Your task to perform on an android device: Look up the best rated book on Goodreads Image 0: 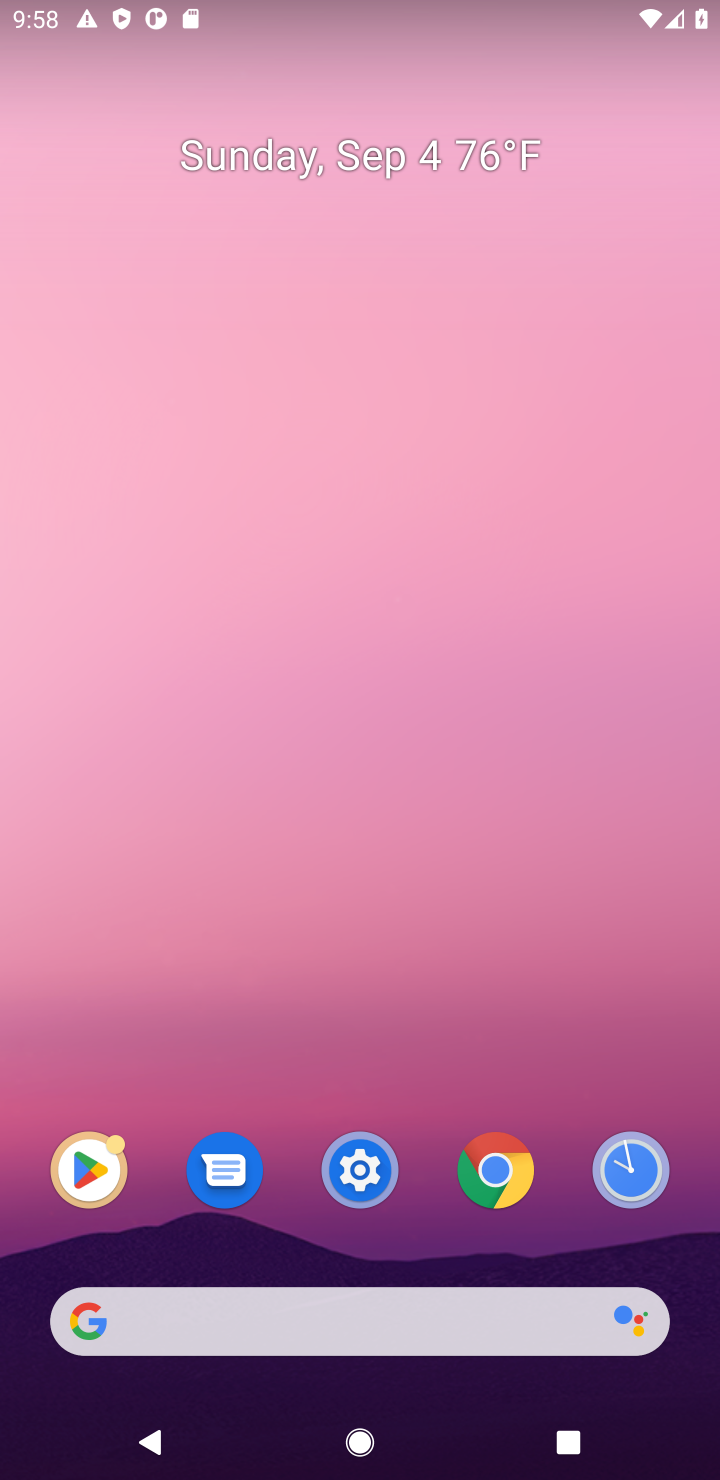
Step 0: click (389, 1341)
Your task to perform on an android device: Look up the best rated book on Goodreads Image 1: 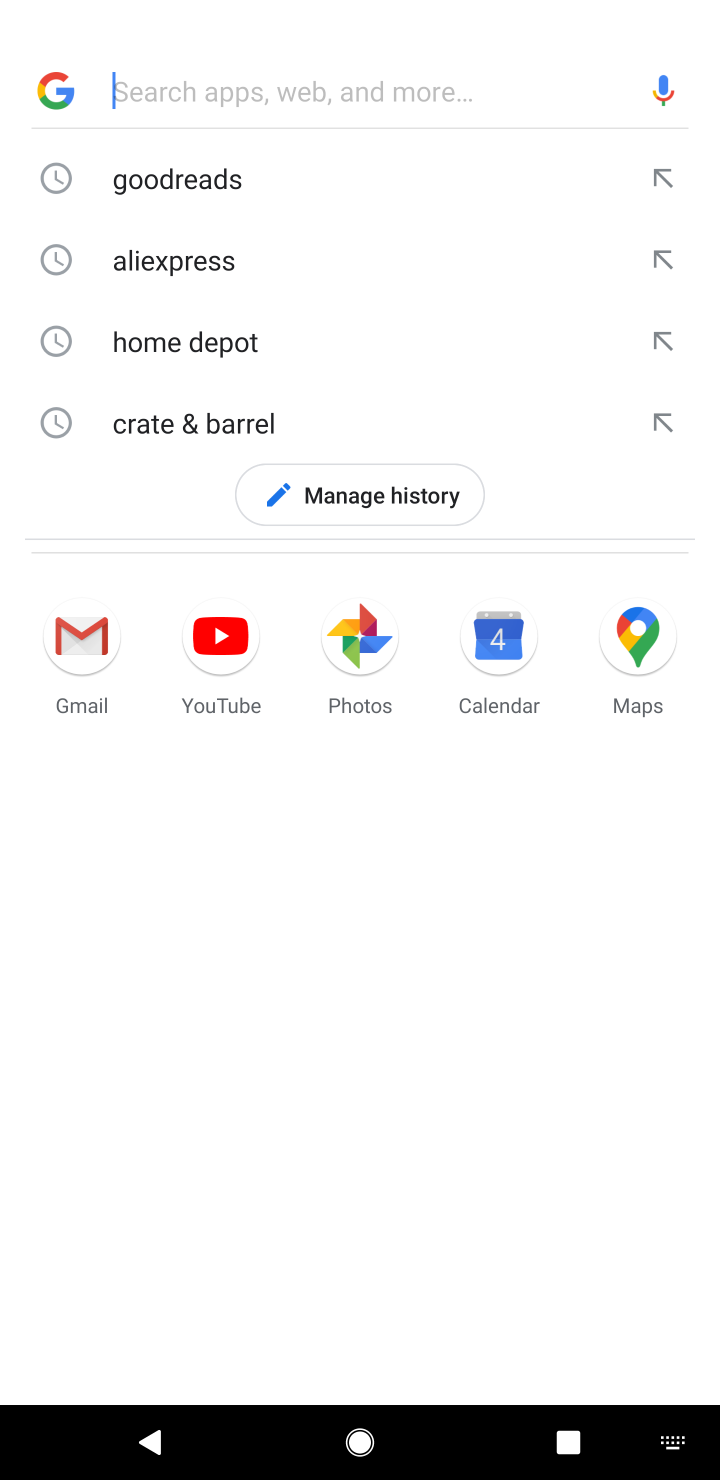
Step 1: click (152, 174)
Your task to perform on an android device: Look up the best rated book on Goodreads Image 2: 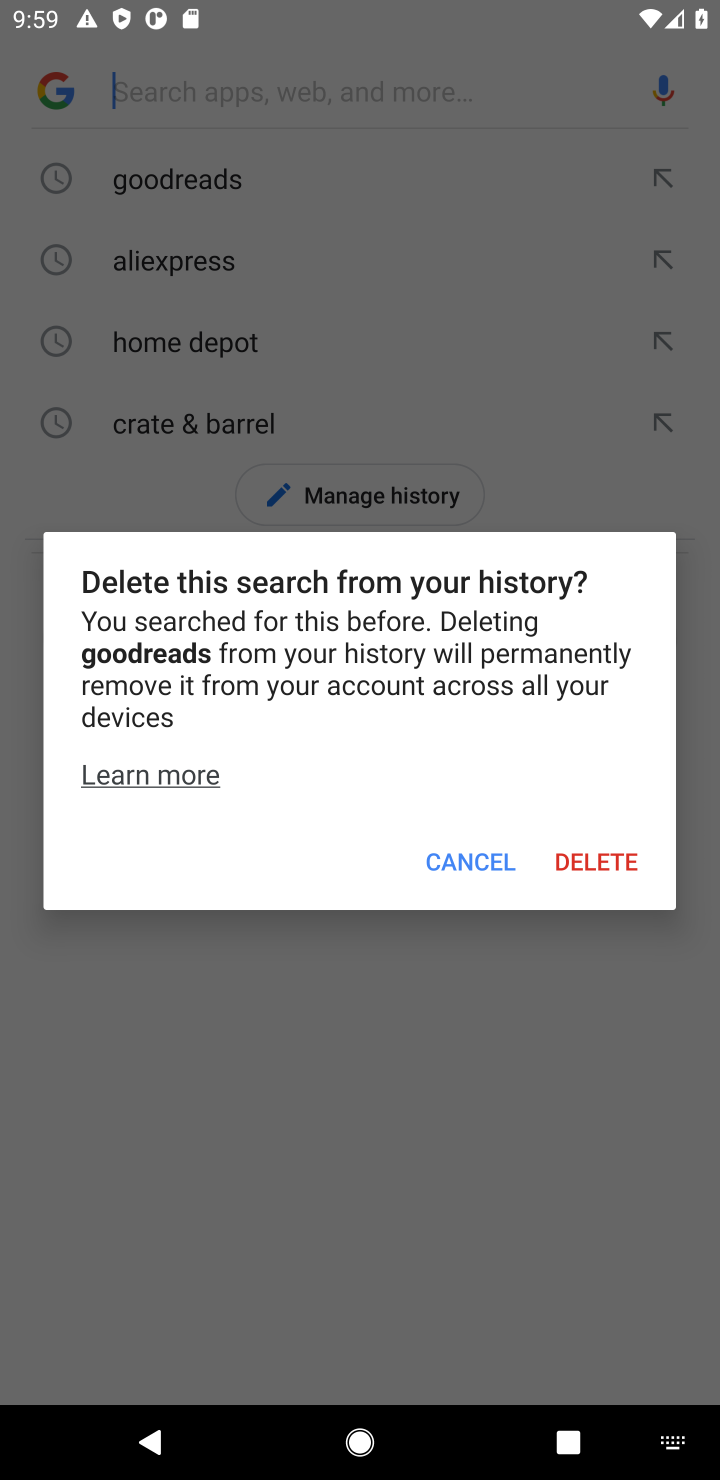
Step 2: click (444, 856)
Your task to perform on an android device: Look up the best rated book on Goodreads Image 3: 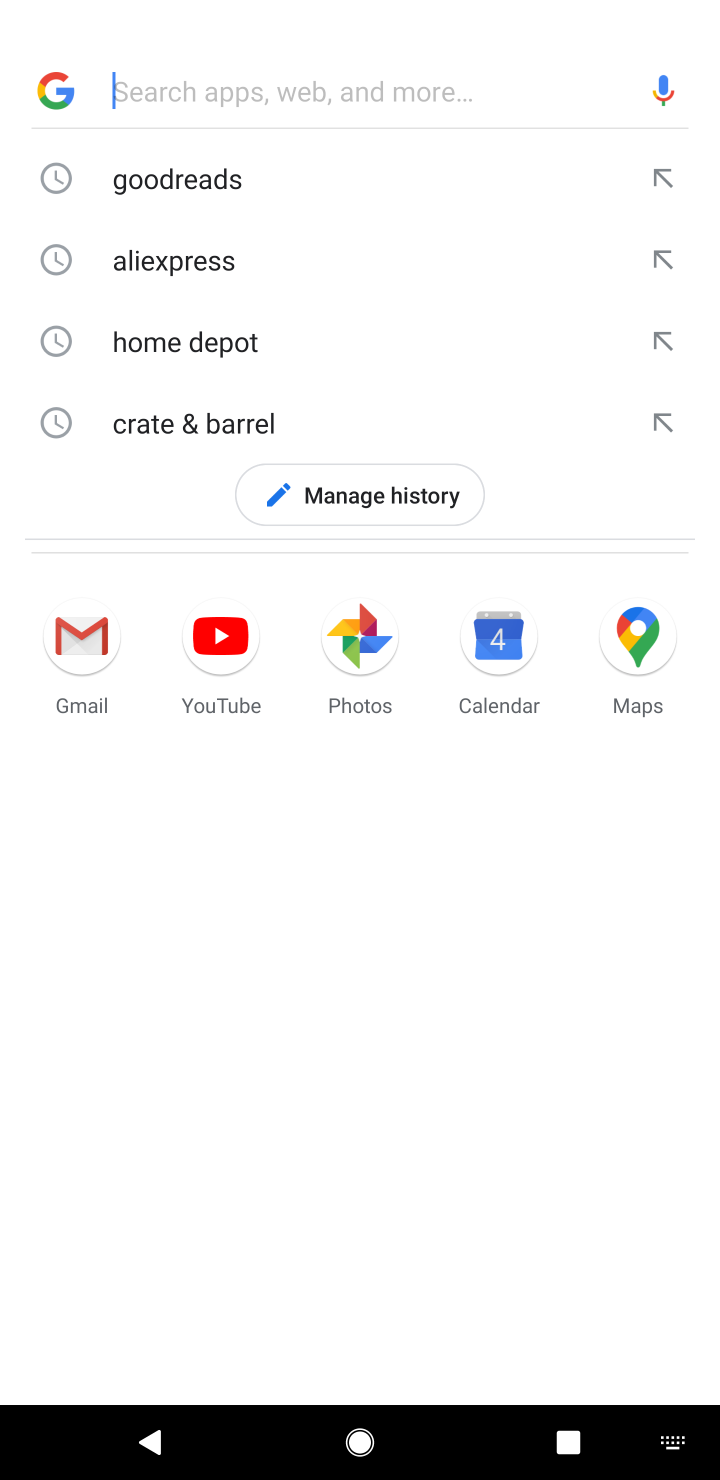
Step 3: click (196, 180)
Your task to perform on an android device: Look up the best rated book on Goodreads Image 4: 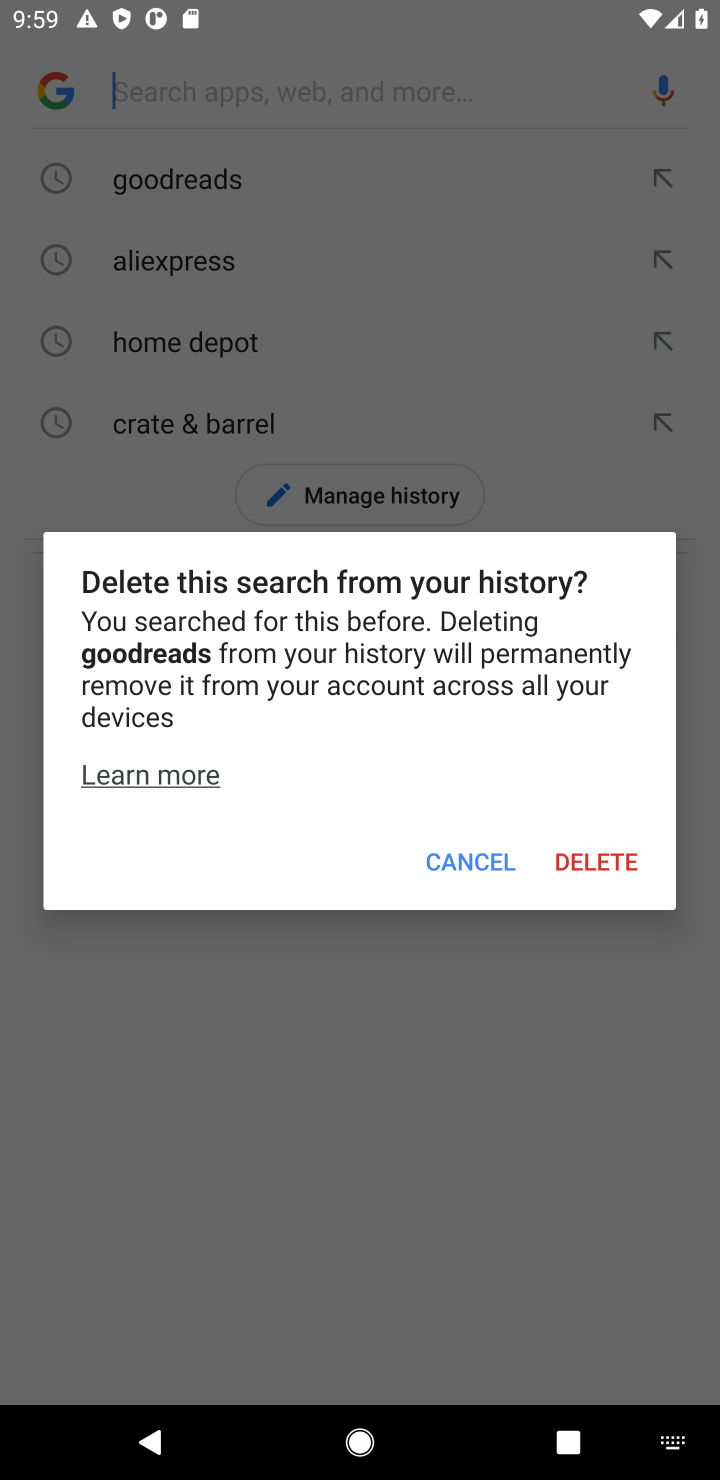
Step 4: click (484, 846)
Your task to perform on an android device: Look up the best rated book on Goodreads Image 5: 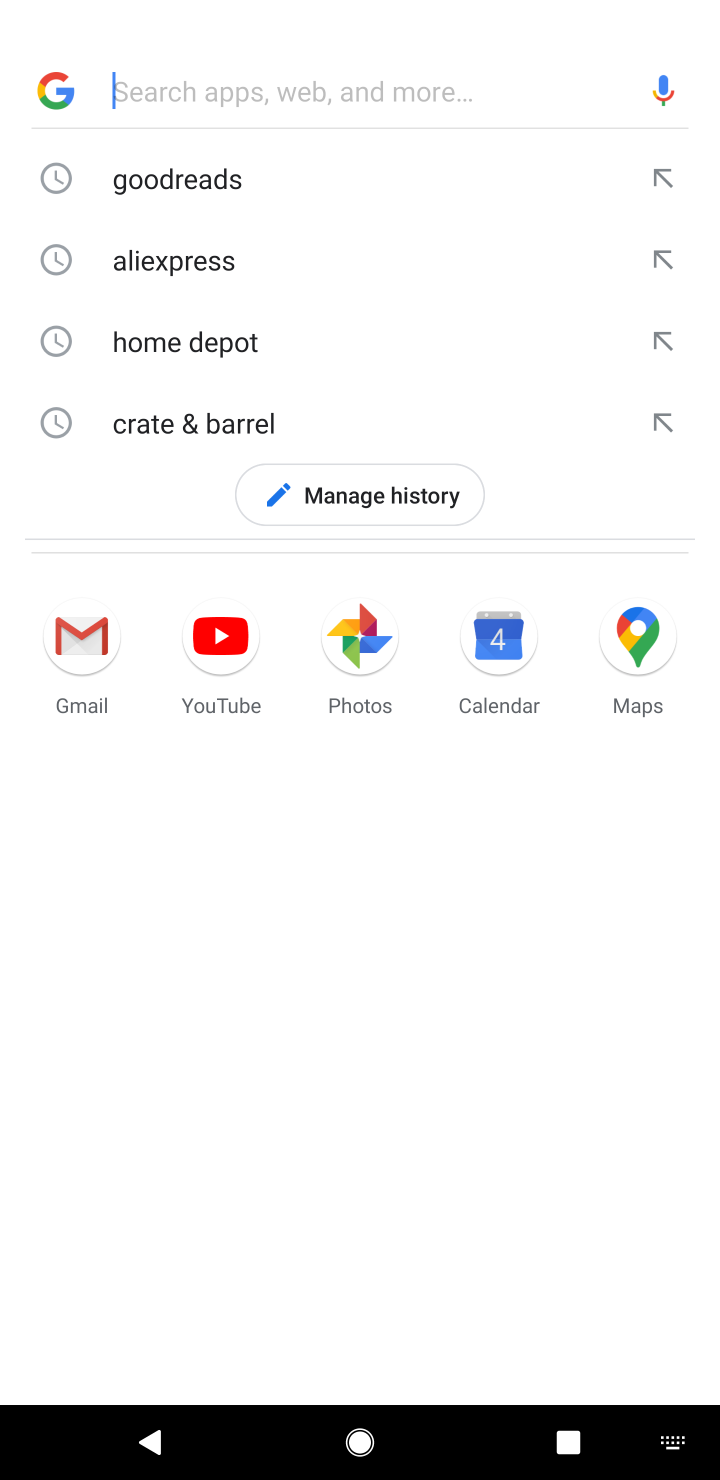
Step 5: click (192, 185)
Your task to perform on an android device: Look up the best rated book on Goodreads Image 6: 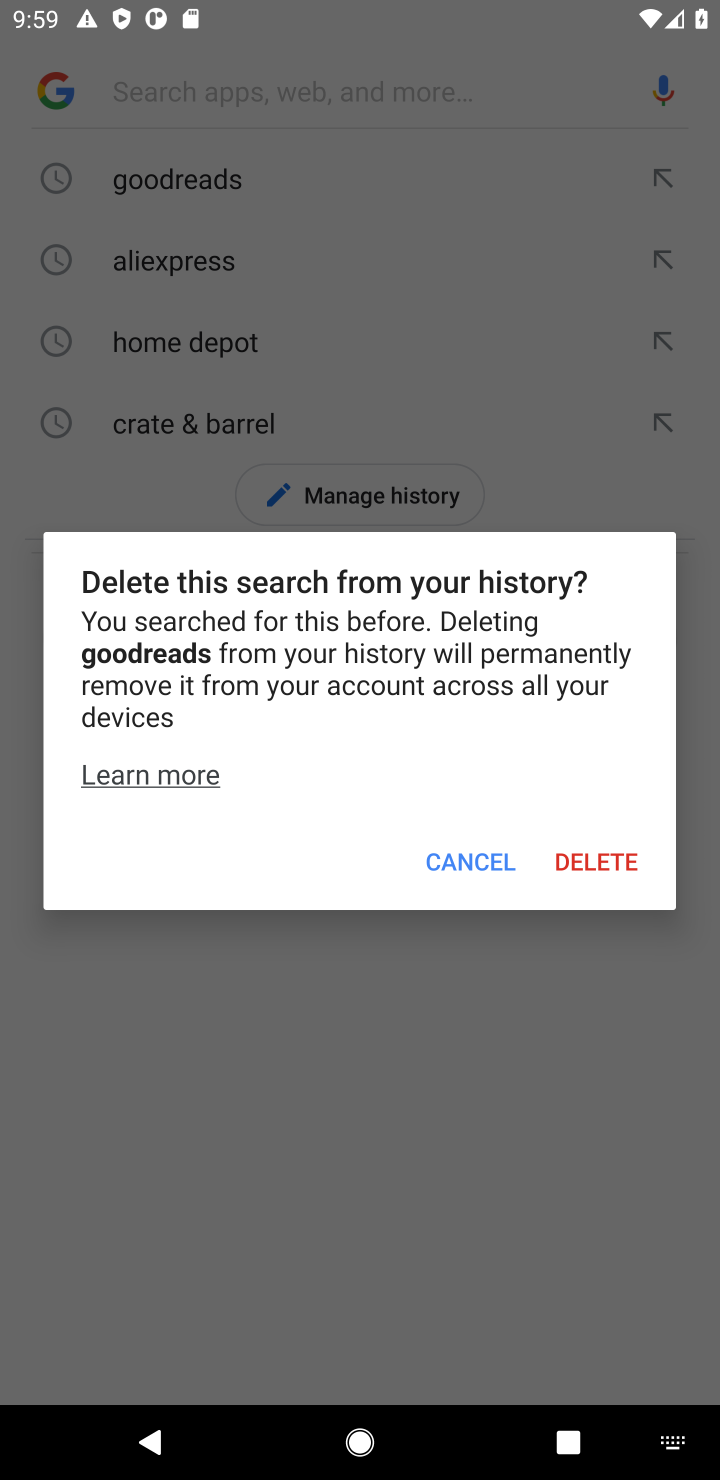
Step 6: click (455, 867)
Your task to perform on an android device: Look up the best rated book on Goodreads Image 7: 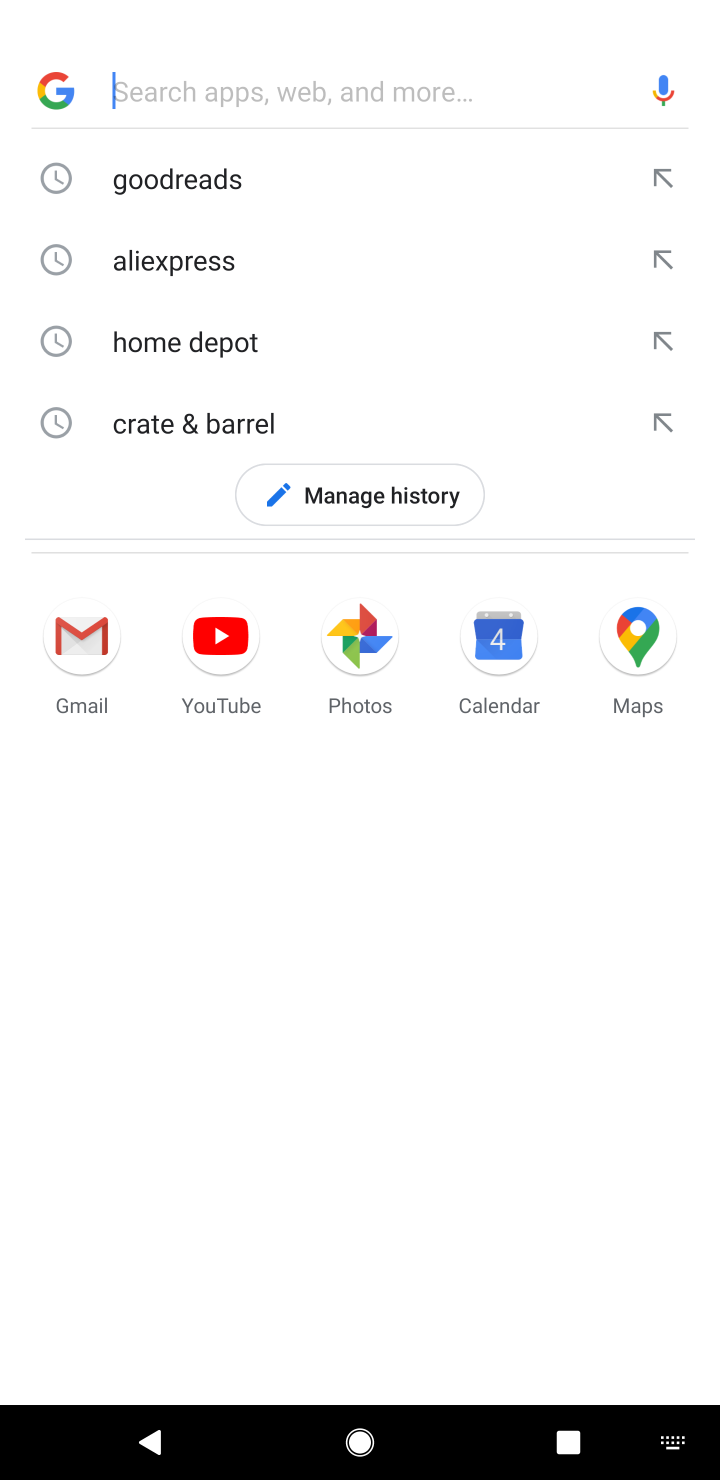
Step 7: click (169, 180)
Your task to perform on an android device: Look up the best rated book on Goodreads Image 8: 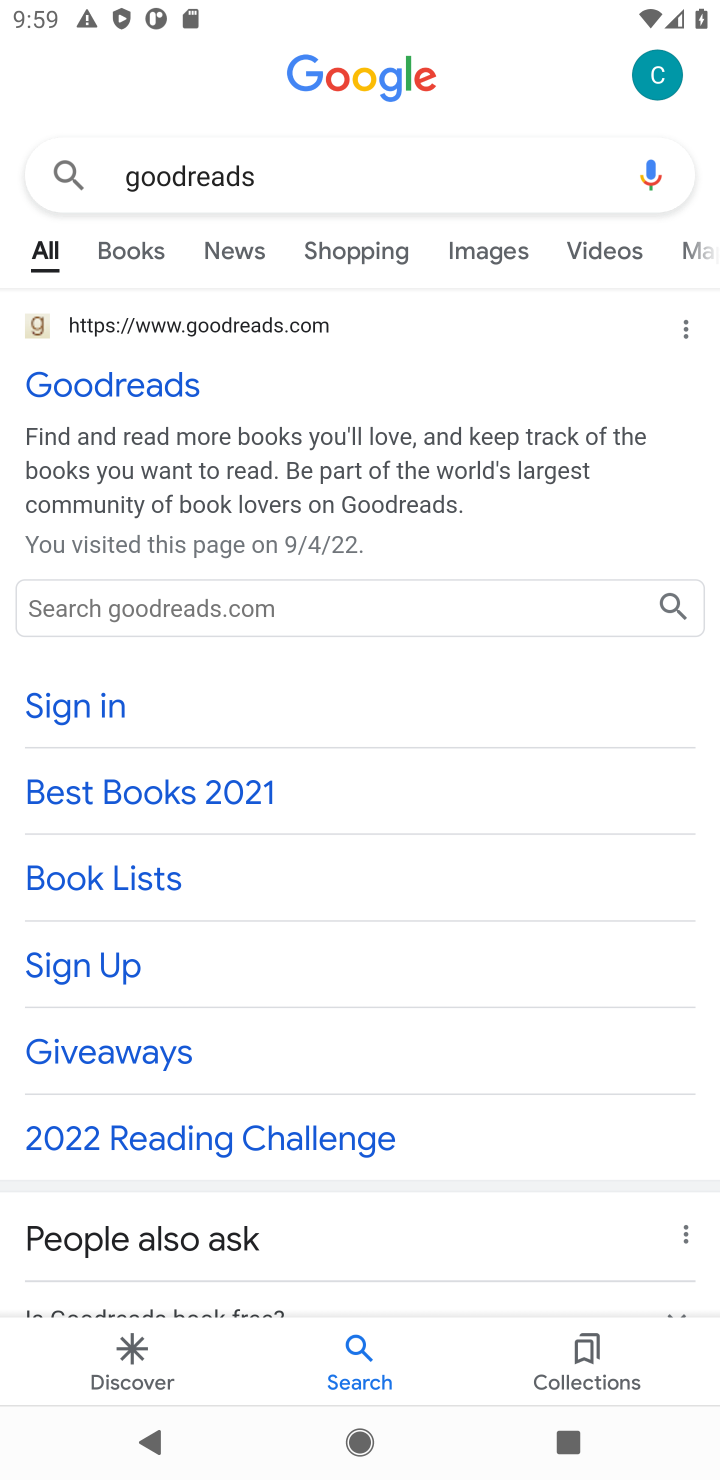
Step 8: click (122, 398)
Your task to perform on an android device: Look up the best rated book on Goodreads Image 9: 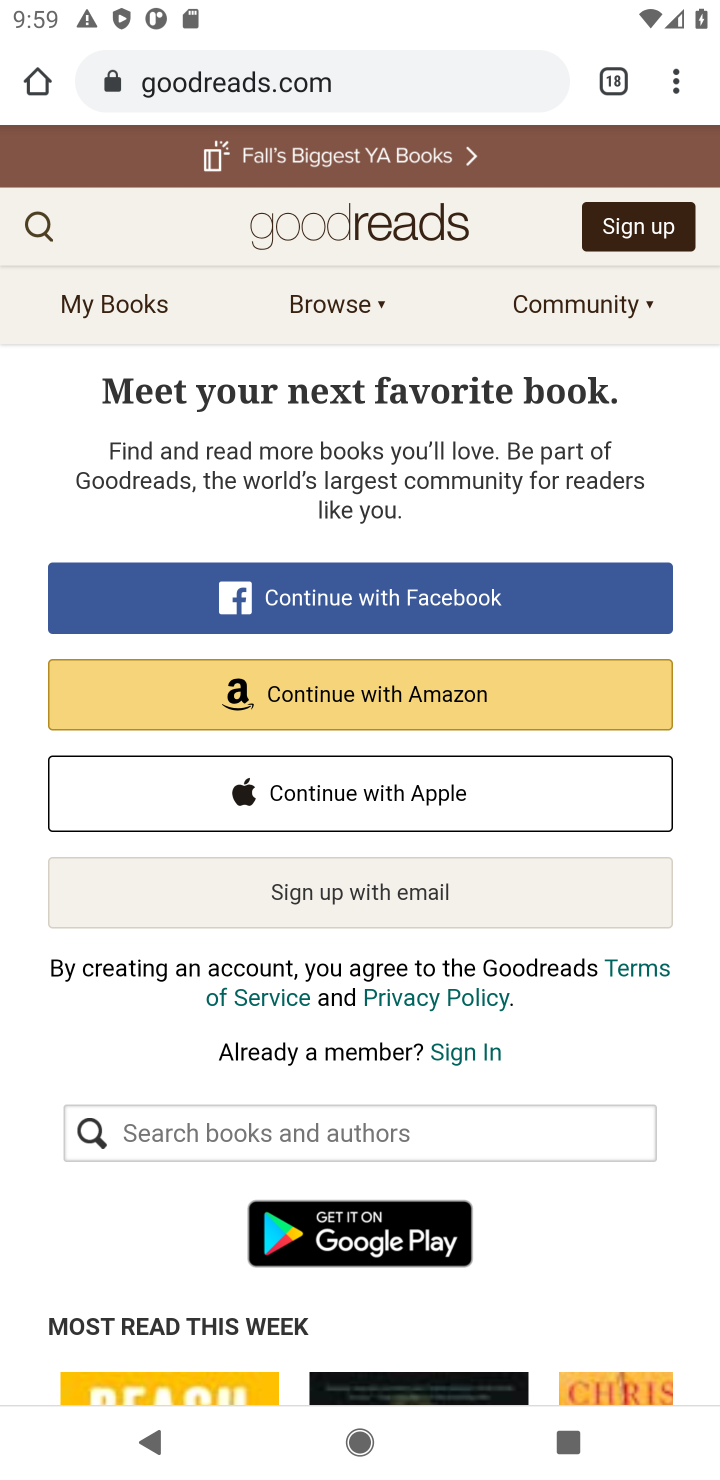
Step 9: click (35, 226)
Your task to perform on an android device: Look up the best rated book on Goodreads Image 10: 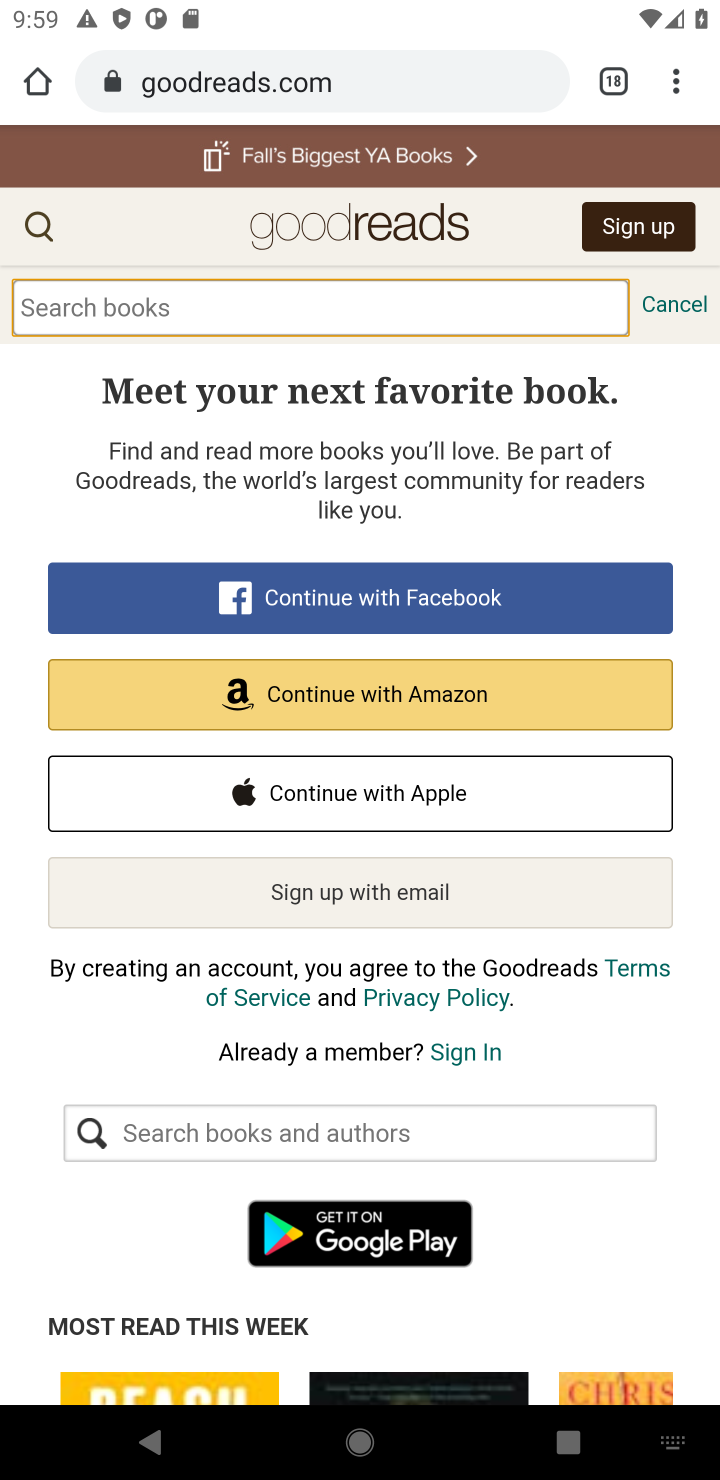
Step 10: click (80, 301)
Your task to perform on an android device: Look up the best rated book on Goodreads Image 11: 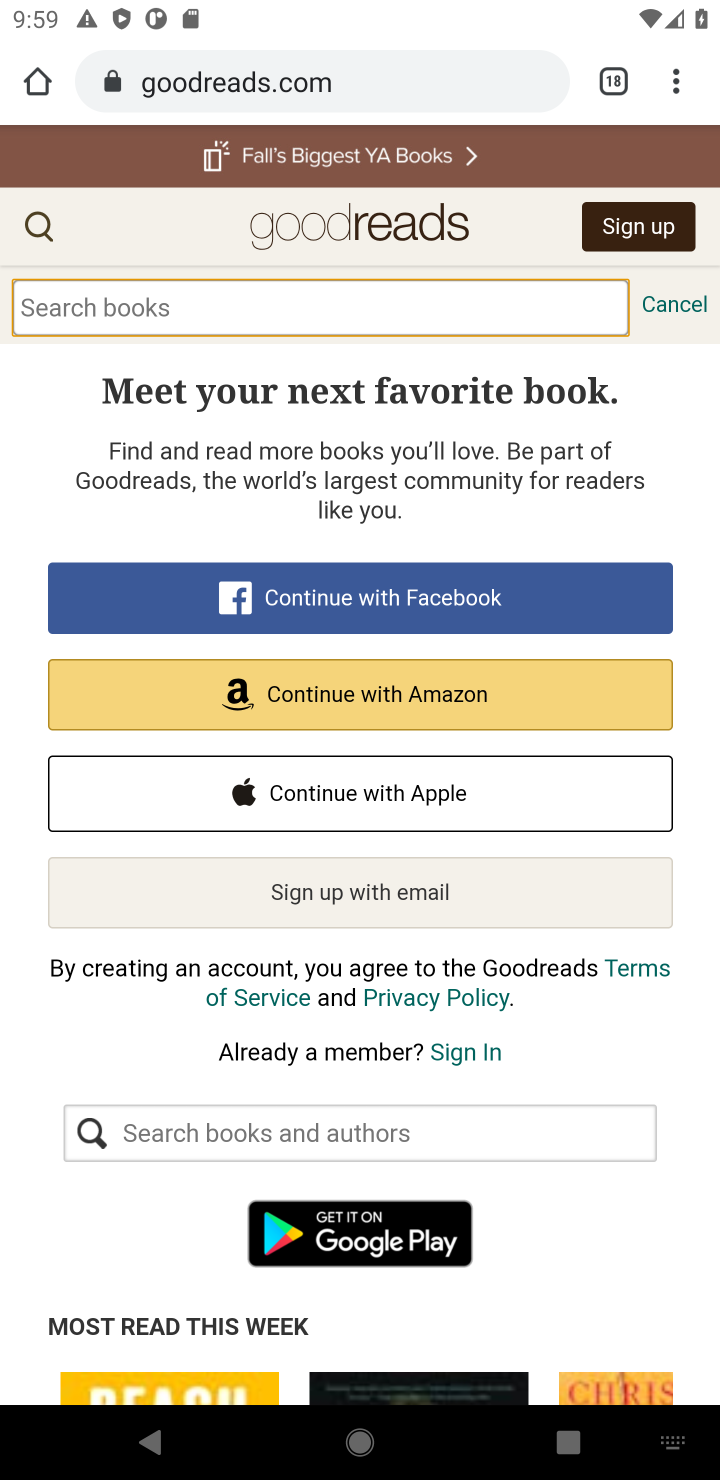
Step 11: type "best rated book"
Your task to perform on an android device: Look up the best rated book on Goodreads Image 12: 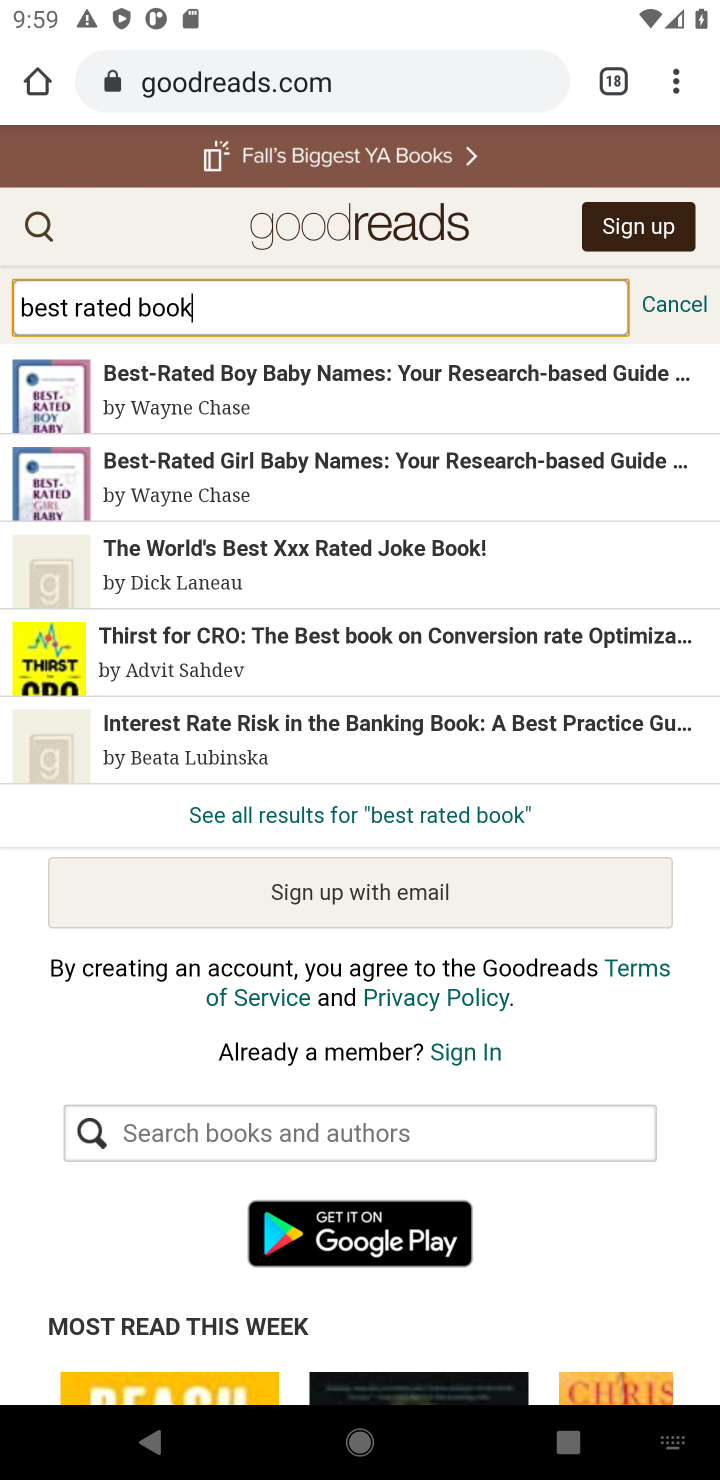
Step 12: click (418, 394)
Your task to perform on an android device: Look up the best rated book on Goodreads Image 13: 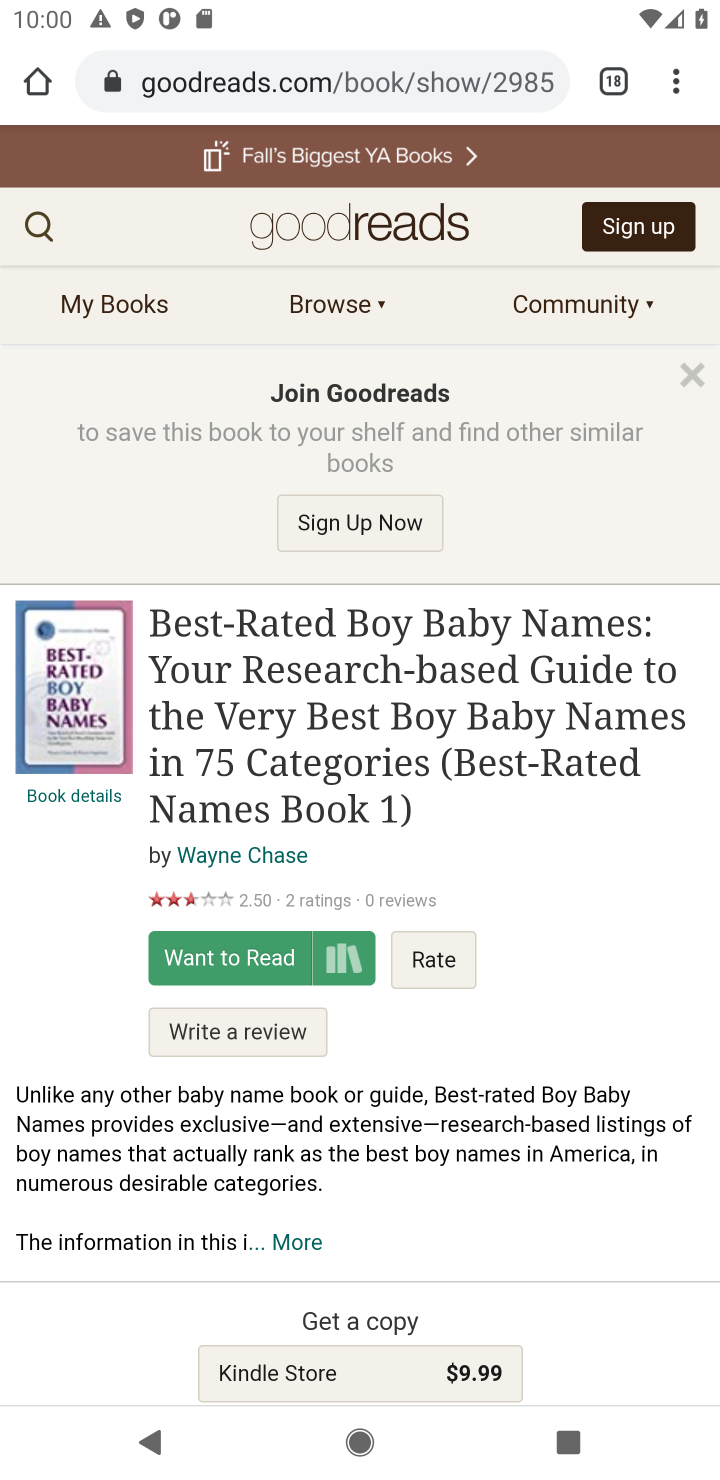
Step 13: task complete